Your task to perform on an android device: see creations saved in the google photos Image 0: 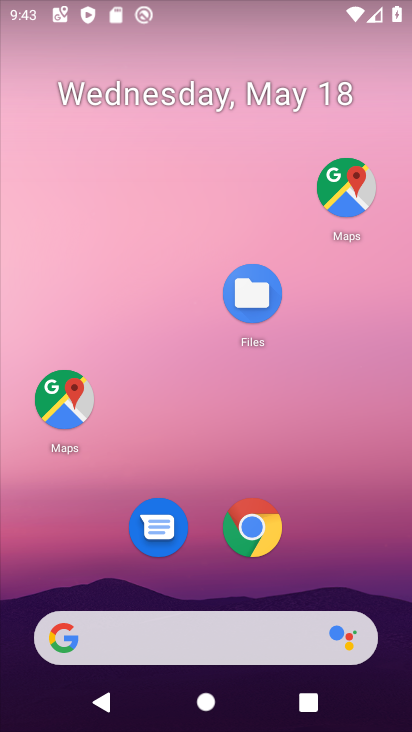
Step 0: drag from (298, 502) to (279, 46)
Your task to perform on an android device: see creations saved in the google photos Image 1: 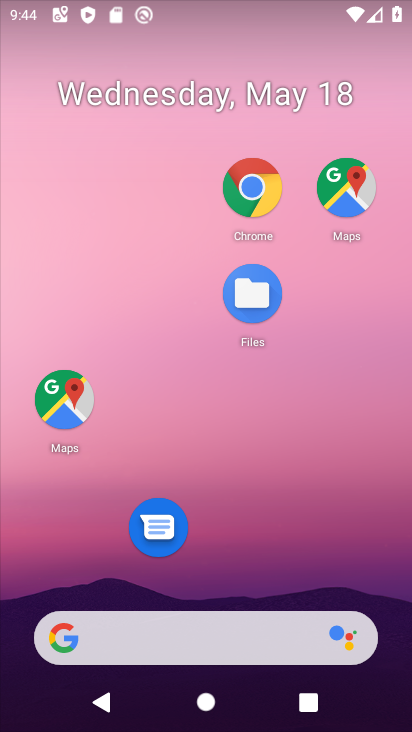
Step 1: drag from (311, 509) to (281, 57)
Your task to perform on an android device: see creations saved in the google photos Image 2: 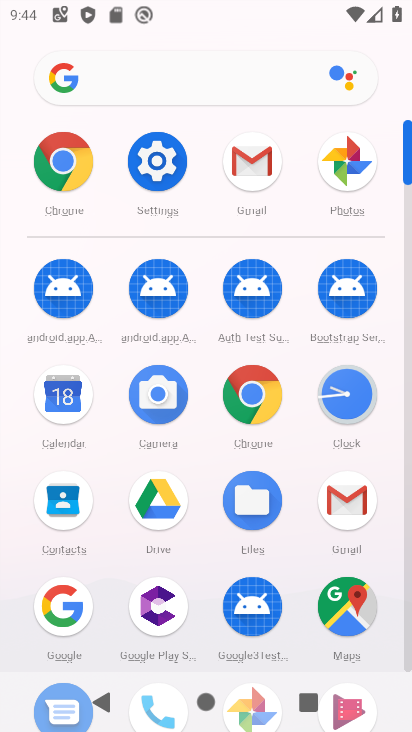
Step 2: drag from (324, 584) to (295, 161)
Your task to perform on an android device: see creations saved in the google photos Image 3: 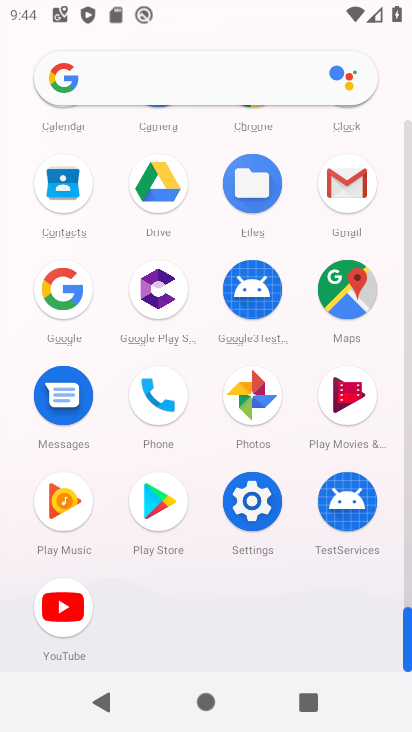
Step 3: click (248, 403)
Your task to perform on an android device: see creations saved in the google photos Image 4: 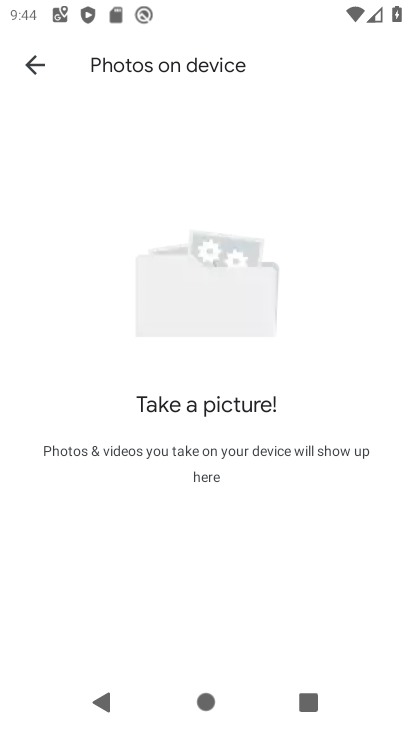
Step 4: click (41, 59)
Your task to perform on an android device: see creations saved in the google photos Image 5: 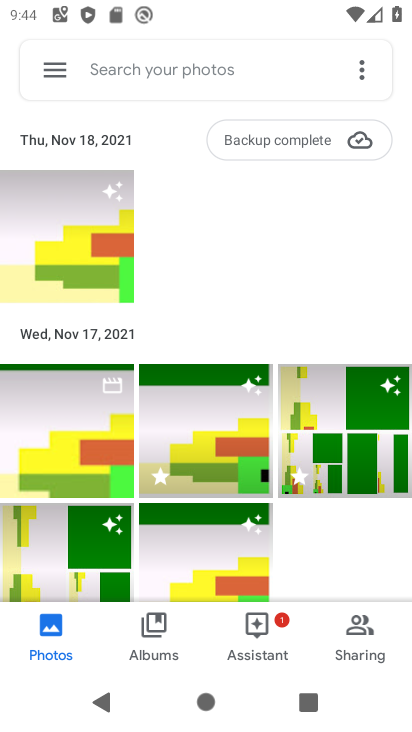
Step 5: click (47, 82)
Your task to perform on an android device: see creations saved in the google photos Image 6: 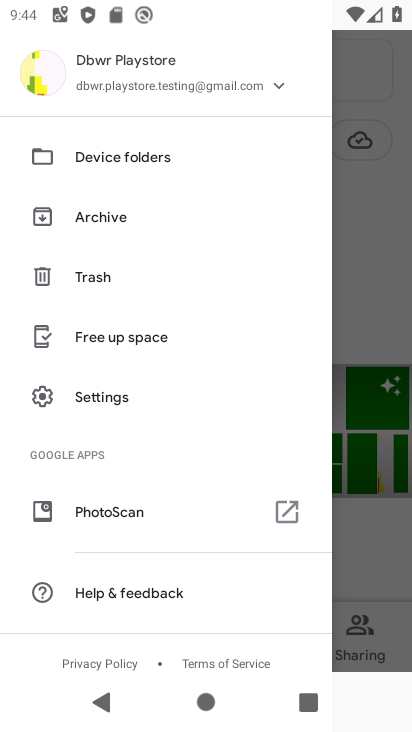
Step 6: drag from (169, 431) to (166, 135)
Your task to perform on an android device: see creations saved in the google photos Image 7: 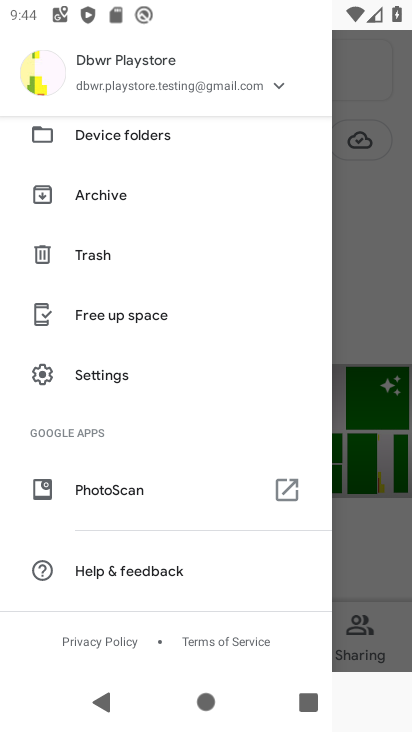
Step 7: click (81, 380)
Your task to perform on an android device: see creations saved in the google photos Image 8: 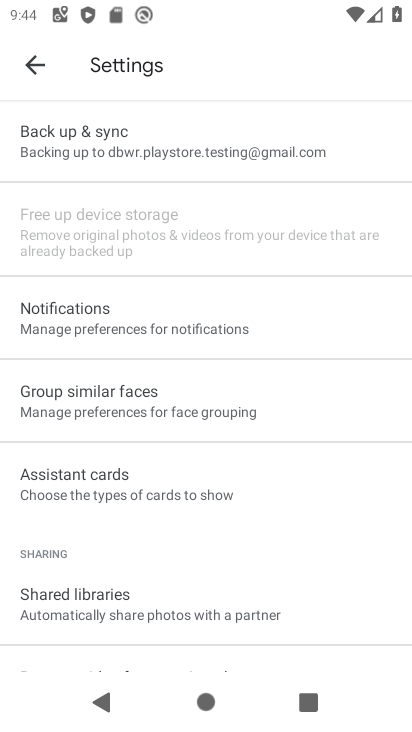
Step 8: drag from (236, 484) to (236, 127)
Your task to perform on an android device: see creations saved in the google photos Image 9: 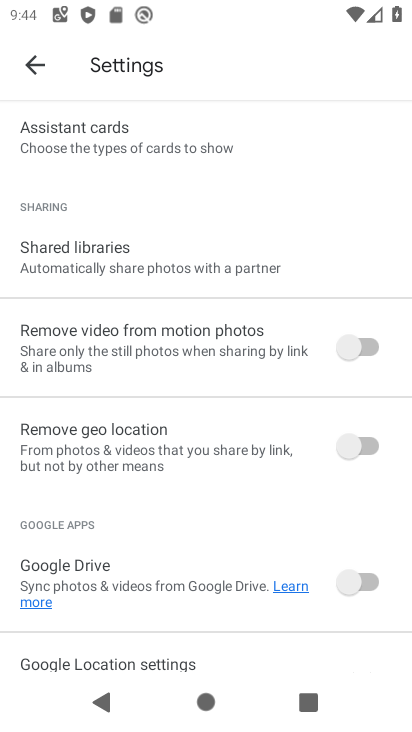
Step 9: drag from (206, 460) to (146, 142)
Your task to perform on an android device: see creations saved in the google photos Image 10: 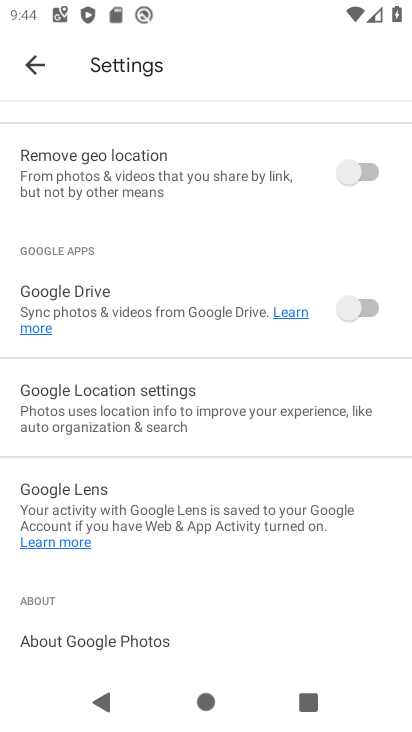
Step 10: drag from (150, 432) to (152, 201)
Your task to perform on an android device: see creations saved in the google photos Image 11: 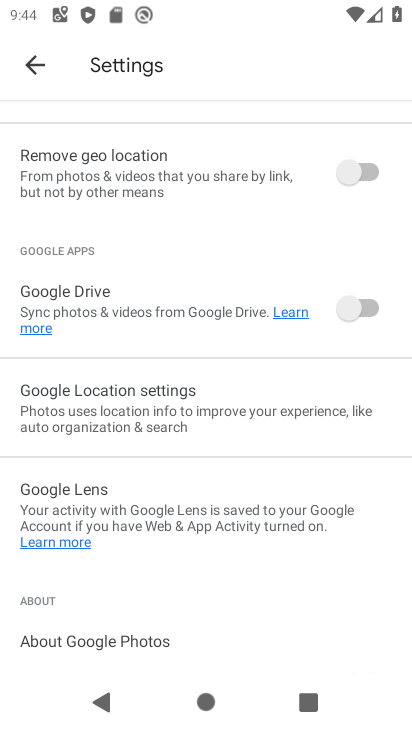
Step 11: click (180, 611)
Your task to perform on an android device: see creations saved in the google photos Image 12: 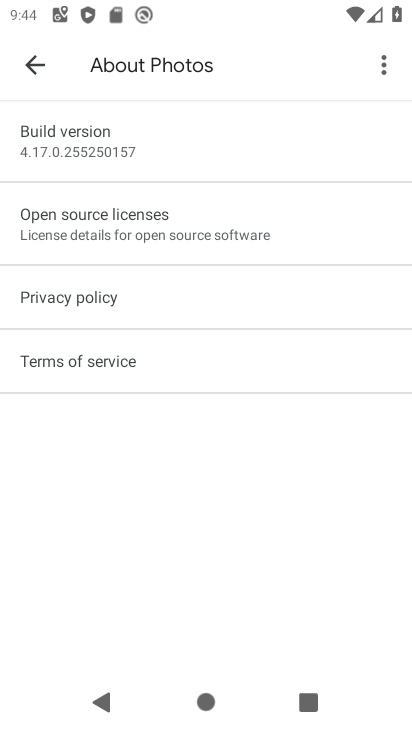
Step 12: press back button
Your task to perform on an android device: see creations saved in the google photos Image 13: 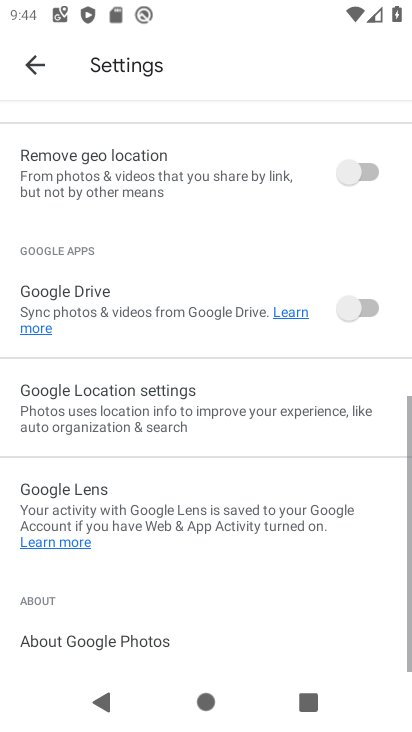
Step 13: press back button
Your task to perform on an android device: see creations saved in the google photos Image 14: 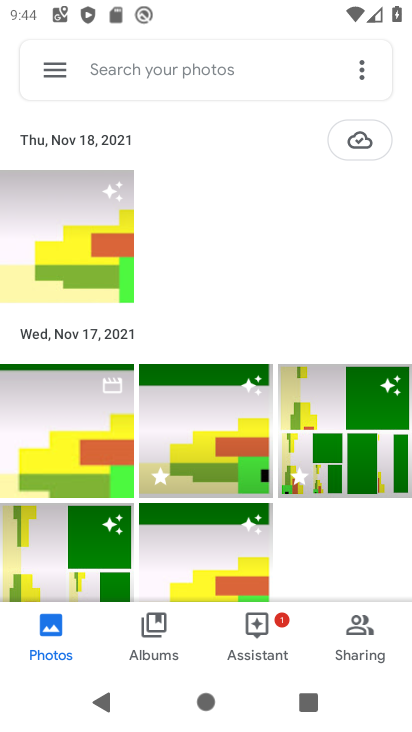
Step 14: click (158, 622)
Your task to perform on an android device: see creations saved in the google photos Image 15: 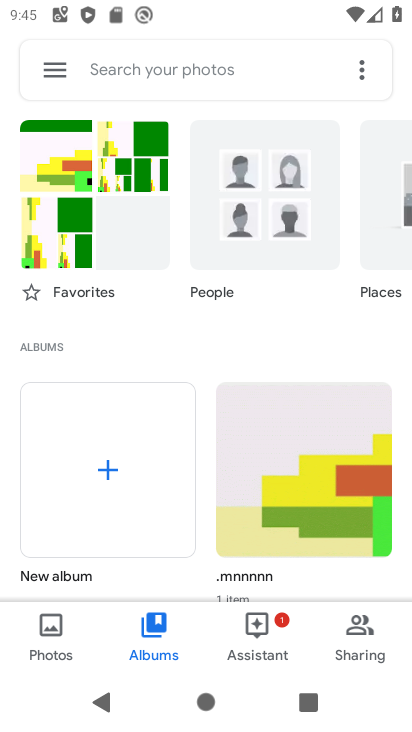
Step 15: drag from (337, 223) to (0, 239)
Your task to perform on an android device: see creations saved in the google photos Image 16: 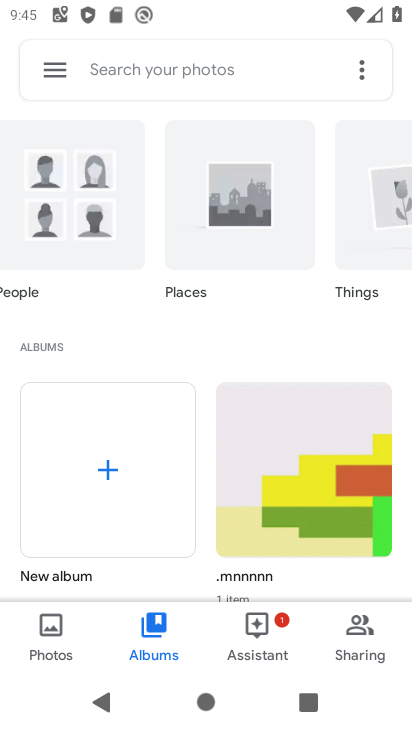
Step 16: click (358, 71)
Your task to perform on an android device: see creations saved in the google photos Image 17: 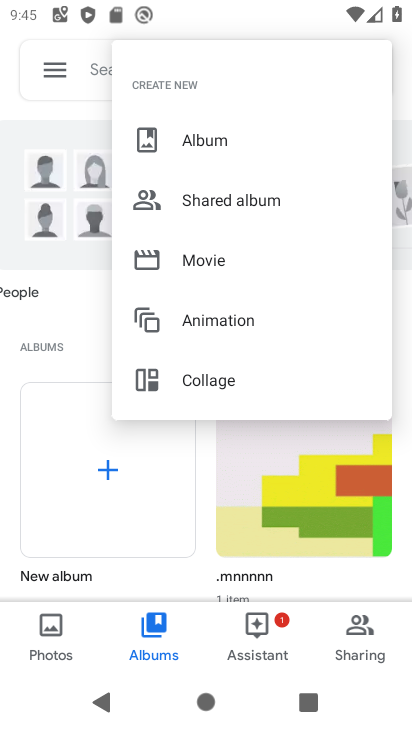
Step 17: press back button
Your task to perform on an android device: see creations saved in the google photos Image 18: 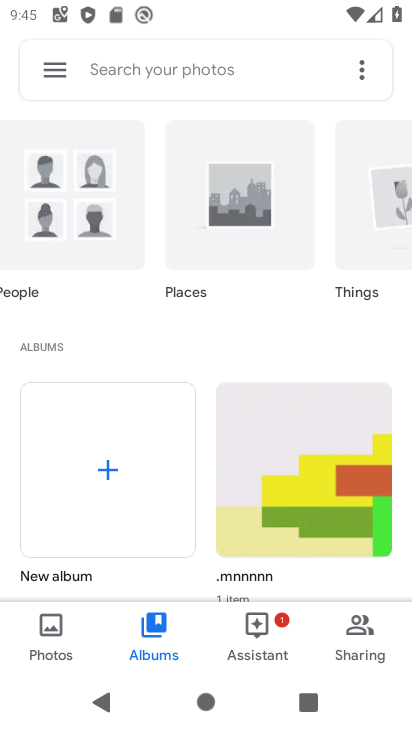
Step 18: click (48, 69)
Your task to perform on an android device: see creations saved in the google photos Image 19: 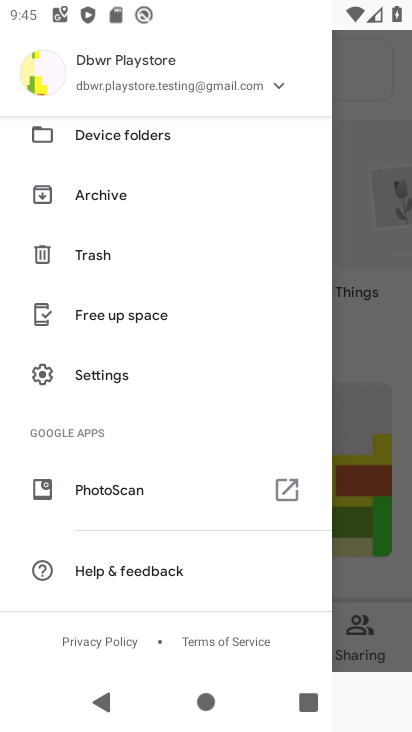
Step 19: task complete